Your task to perform on an android device: toggle javascript in the chrome app Image 0: 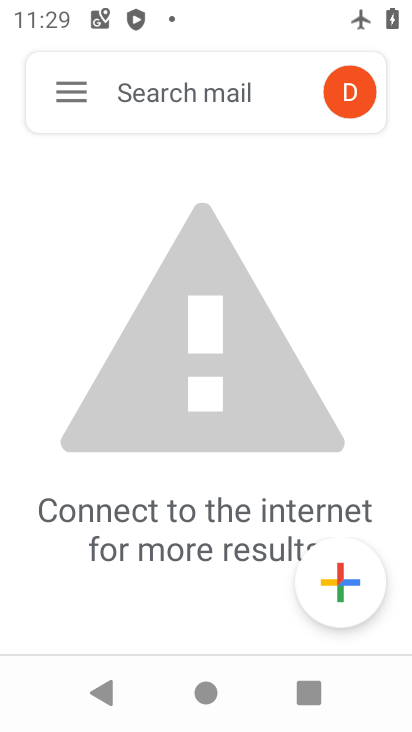
Step 0: press home button
Your task to perform on an android device: toggle javascript in the chrome app Image 1: 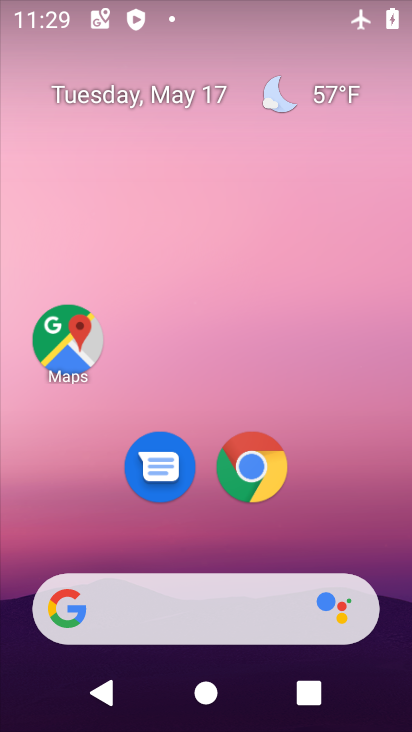
Step 1: drag from (219, 645) to (328, 64)
Your task to perform on an android device: toggle javascript in the chrome app Image 2: 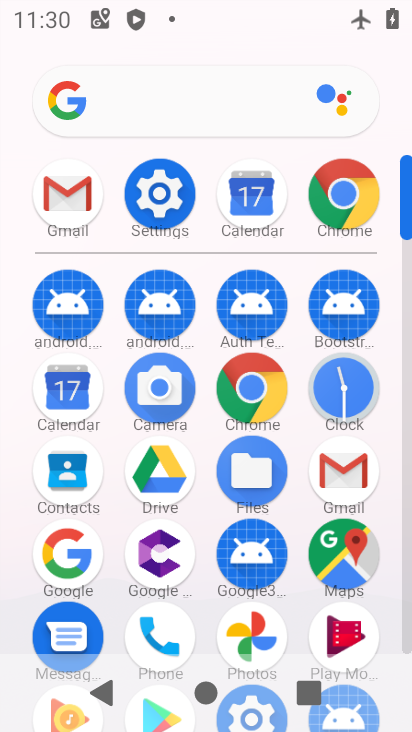
Step 2: click (361, 209)
Your task to perform on an android device: toggle javascript in the chrome app Image 3: 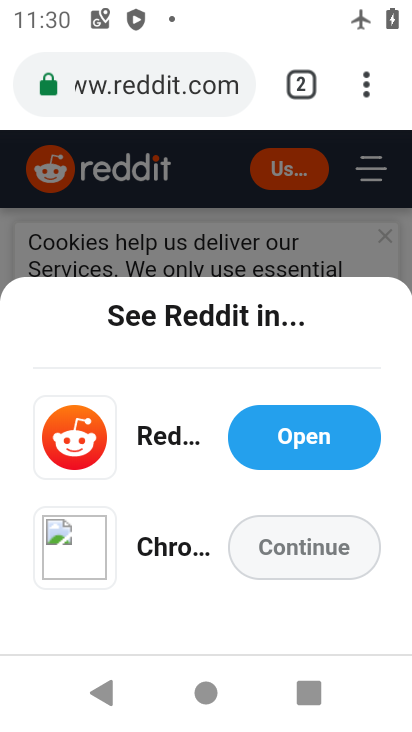
Step 3: click (364, 90)
Your task to perform on an android device: toggle javascript in the chrome app Image 4: 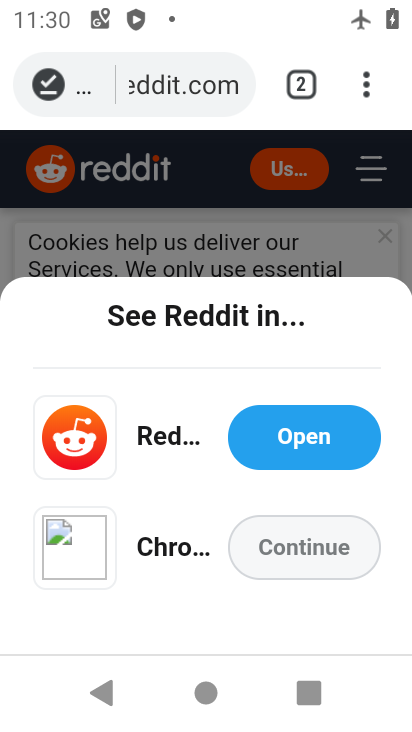
Step 4: click (354, 106)
Your task to perform on an android device: toggle javascript in the chrome app Image 5: 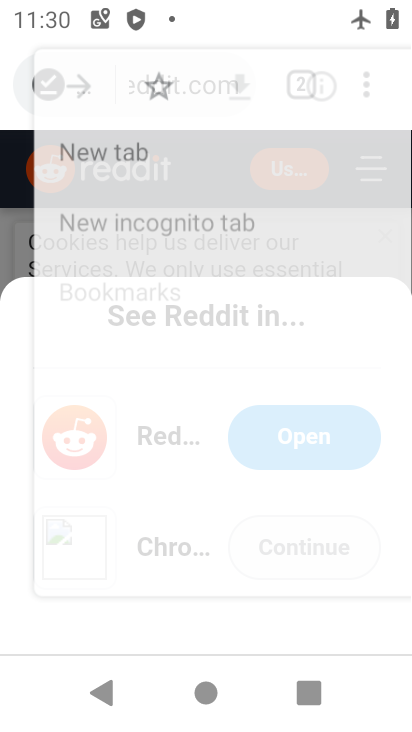
Step 5: click (354, 105)
Your task to perform on an android device: toggle javascript in the chrome app Image 6: 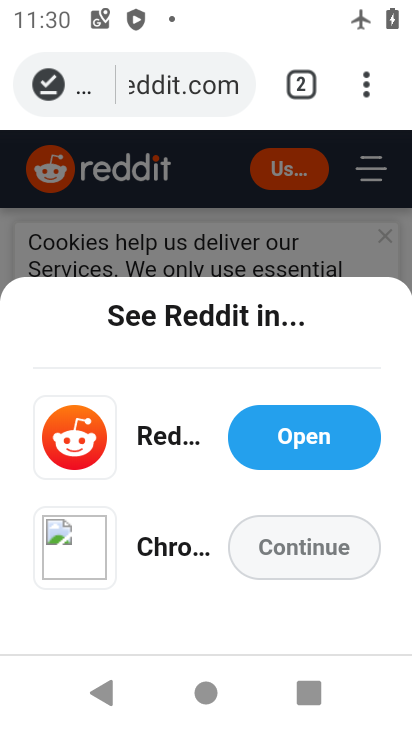
Step 6: click (351, 109)
Your task to perform on an android device: toggle javascript in the chrome app Image 7: 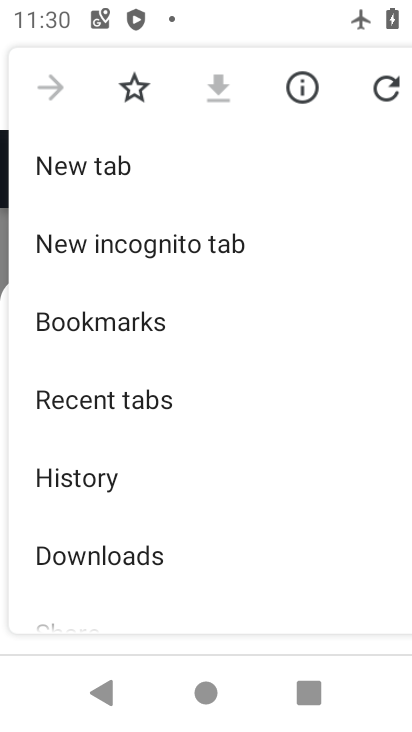
Step 7: drag from (147, 562) to (157, 301)
Your task to perform on an android device: toggle javascript in the chrome app Image 8: 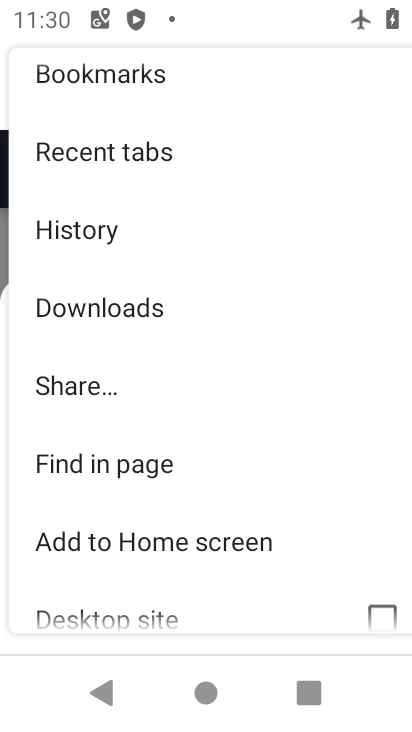
Step 8: drag from (90, 582) to (162, 309)
Your task to perform on an android device: toggle javascript in the chrome app Image 9: 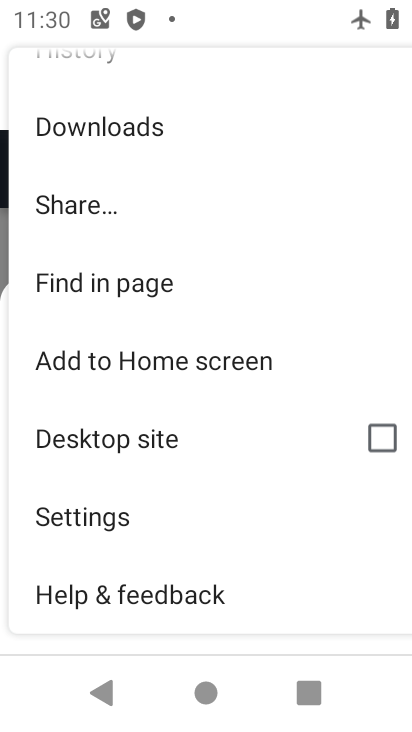
Step 9: click (102, 524)
Your task to perform on an android device: toggle javascript in the chrome app Image 10: 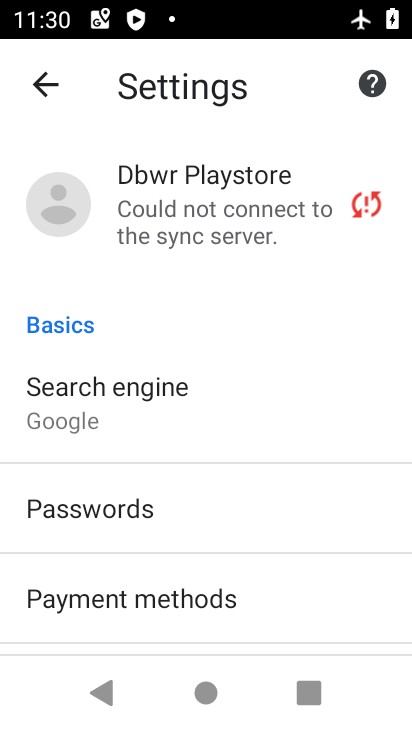
Step 10: drag from (117, 505) to (108, 230)
Your task to perform on an android device: toggle javascript in the chrome app Image 11: 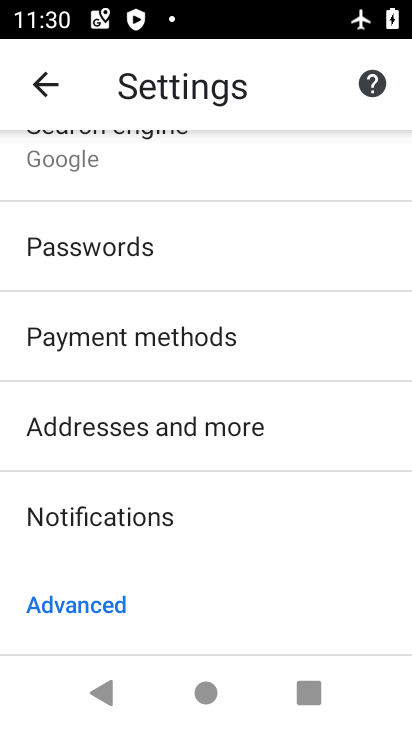
Step 11: drag from (108, 524) to (148, 275)
Your task to perform on an android device: toggle javascript in the chrome app Image 12: 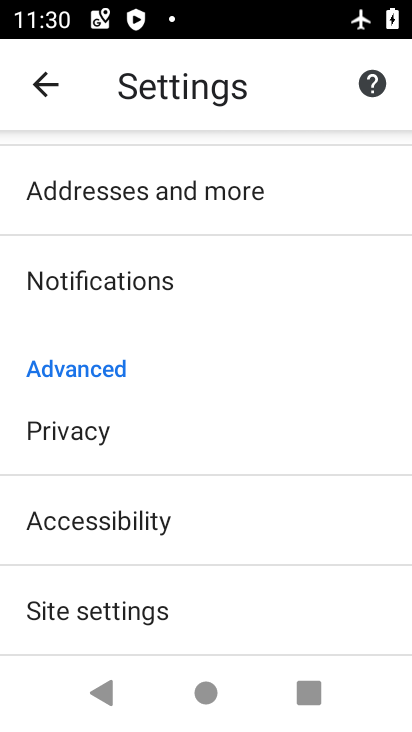
Step 12: click (102, 605)
Your task to perform on an android device: toggle javascript in the chrome app Image 13: 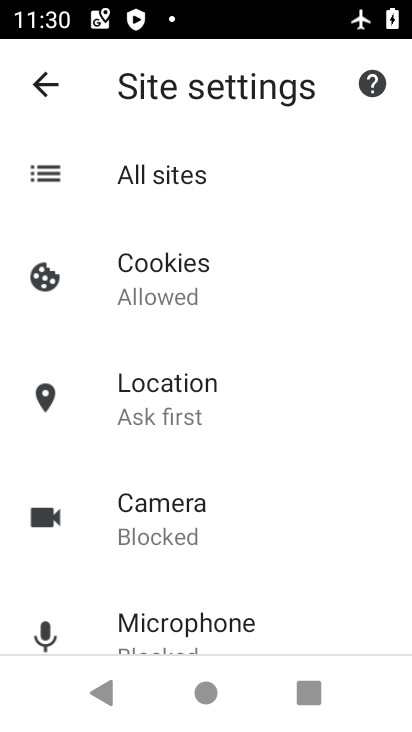
Step 13: drag from (210, 576) to (232, 354)
Your task to perform on an android device: toggle javascript in the chrome app Image 14: 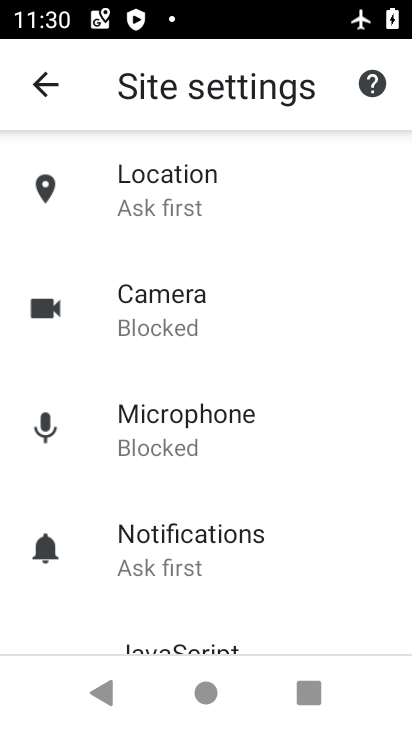
Step 14: drag from (168, 578) to (204, 457)
Your task to perform on an android device: toggle javascript in the chrome app Image 15: 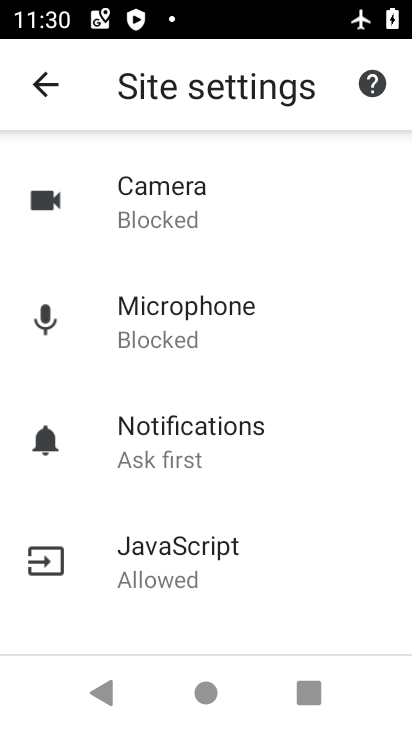
Step 15: click (145, 565)
Your task to perform on an android device: toggle javascript in the chrome app Image 16: 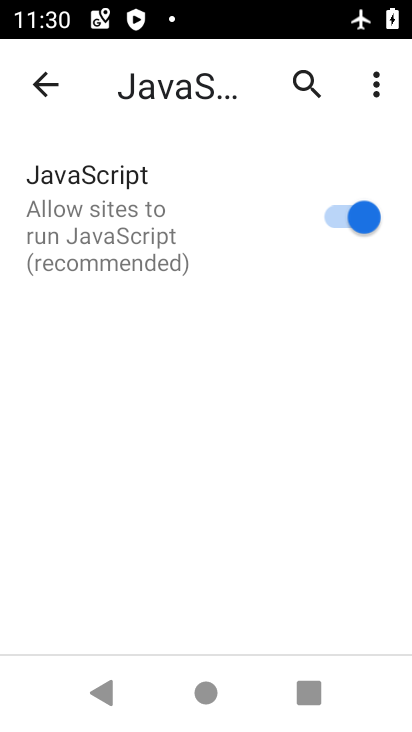
Step 16: task complete